Your task to perform on an android device: set an alarm Image 0: 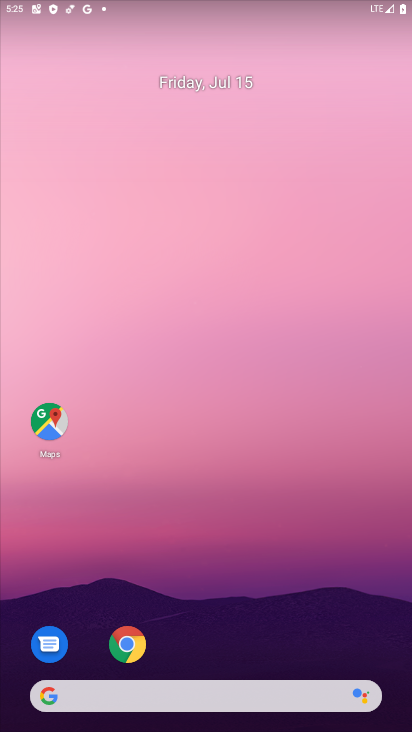
Step 0: drag from (216, 646) to (183, 148)
Your task to perform on an android device: set an alarm Image 1: 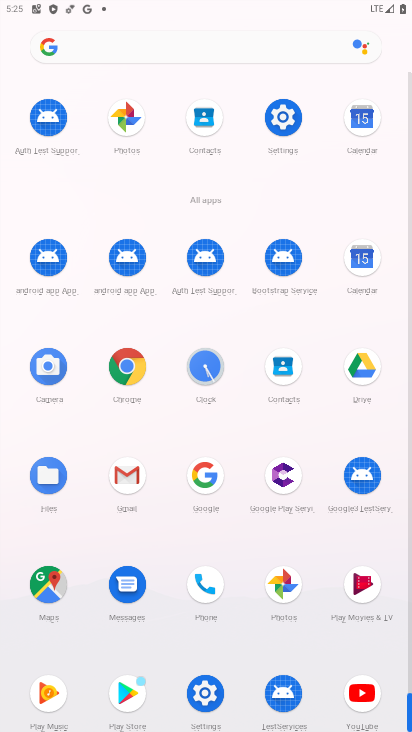
Step 1: click (203, 367)
Your task to perform on an android device: set an alarm Image 2: 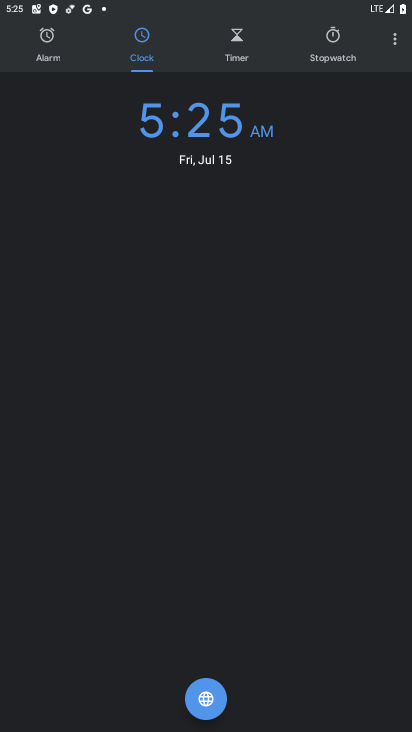
Step 2: click (47, 48)
Your task to perform on an android device: set an alarm Image 3: 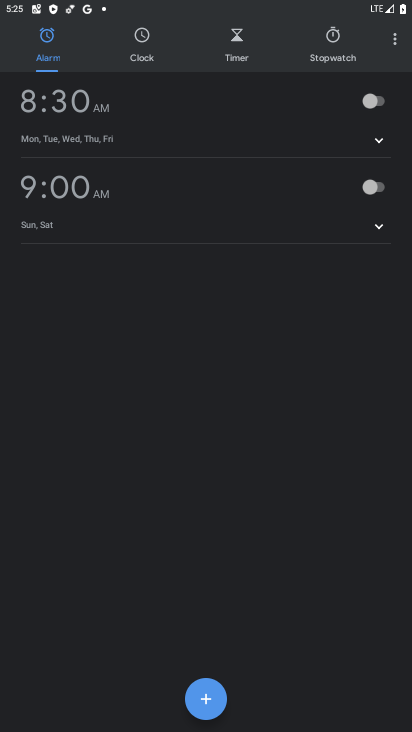
Step 3: click (381, 107)
Your task to perform on an android device: set an alarm Image 4: 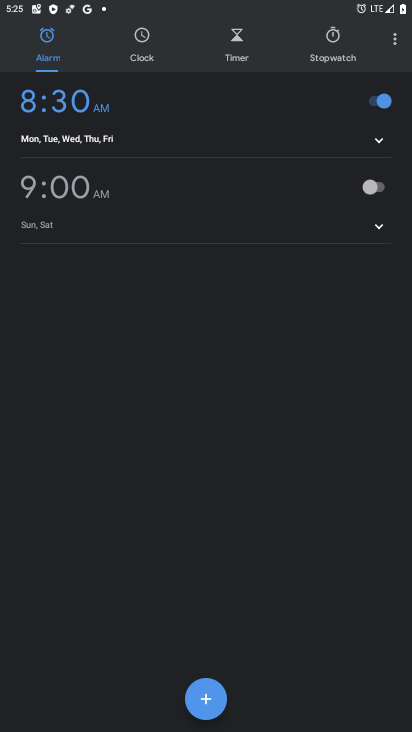
Step 4: task complete